Your task to perform on an android device: Go to wifi settings Image 0: 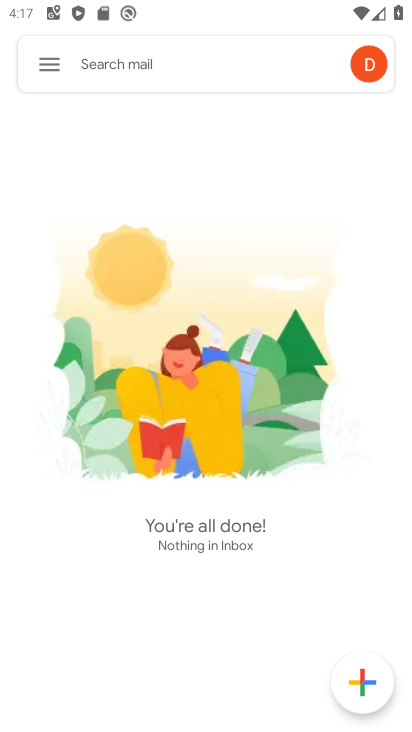
Step 0: press home button
Your task to perform on an android device: Go to wifi settings Image 1: 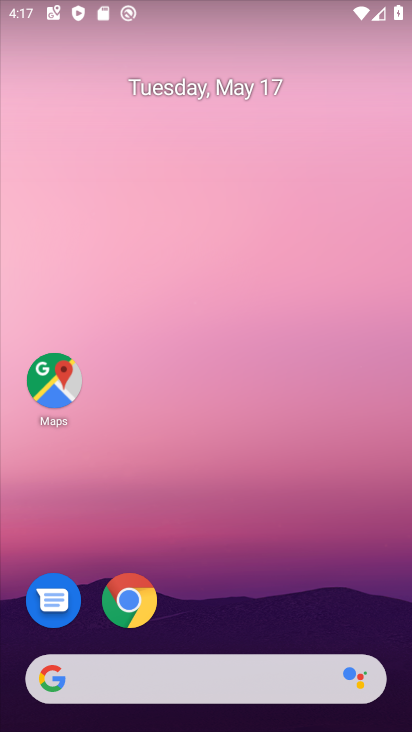
Step 1: drag from (193, 512) to (281, 32)
Your task to perform on an android device: Go to wifi settings Image 2: 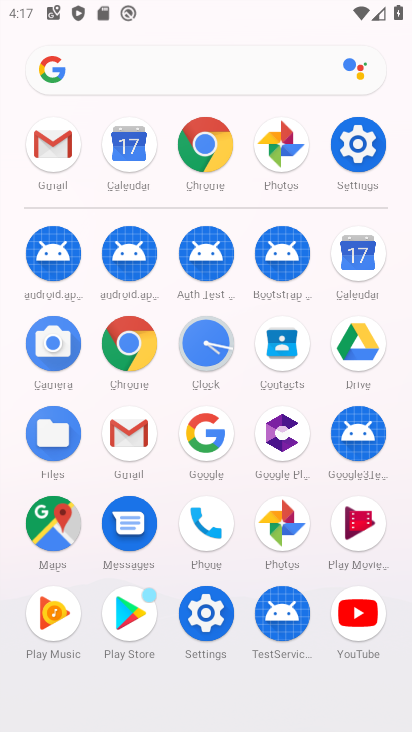
Step 2: click (210, 628)
Your task to perform on an android device: Go to wifi settings Image 3: 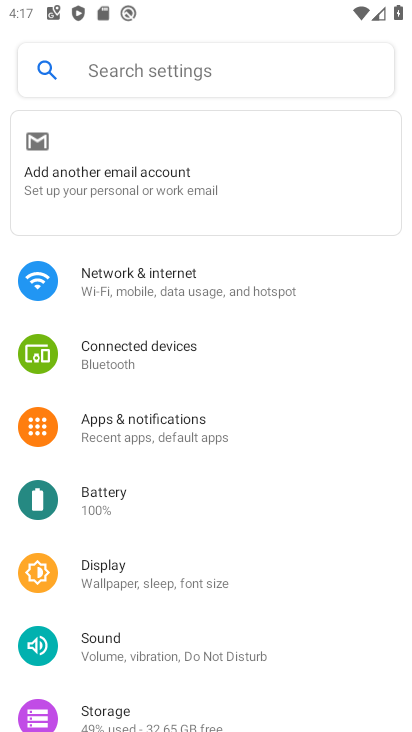
Step 3: click (149, 277)
Your task to perform on an android device: Go to wifi settings Image 4: 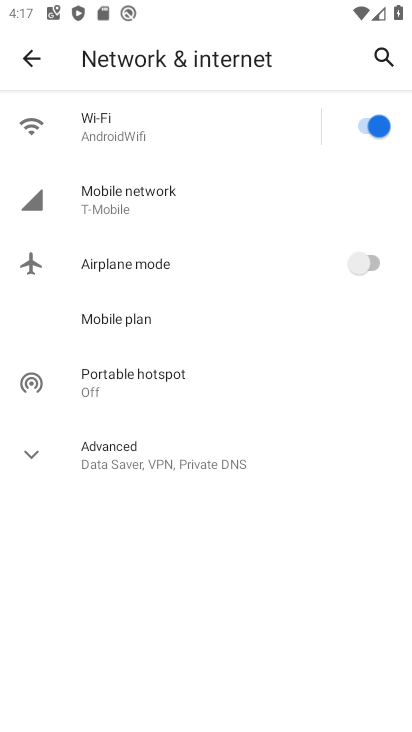
Step 4: click (147, 127)
Your task to perform on an android device: Go to wifi settings Image 5: 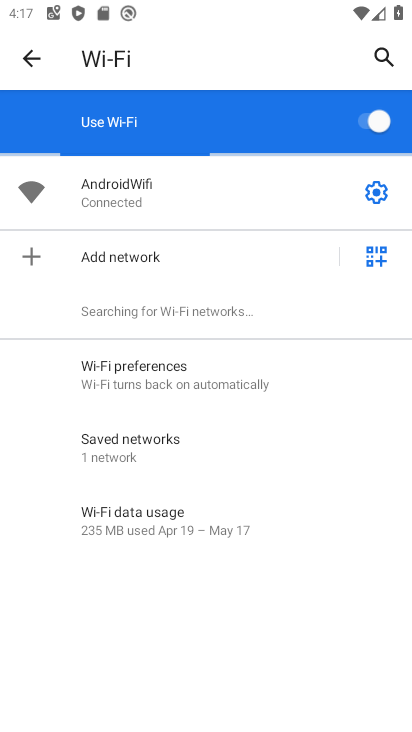
Step 5: task complete